Your task to perform on an android device: turn on data saver in the chrome app Image 0: 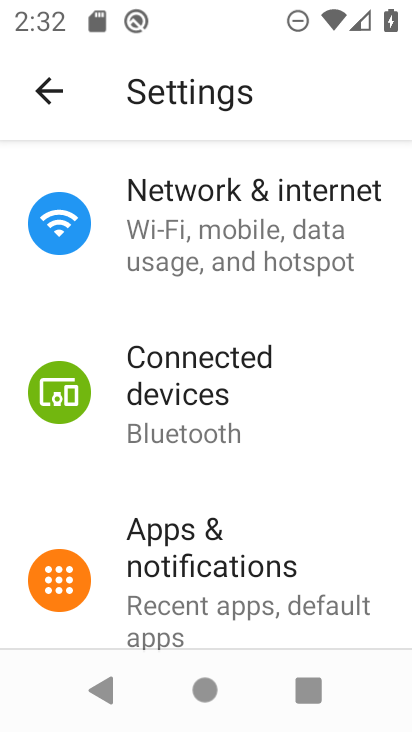
Step 0: press home button
Your task to perform on an android device: turn on data saver in the chrome app Image 1: 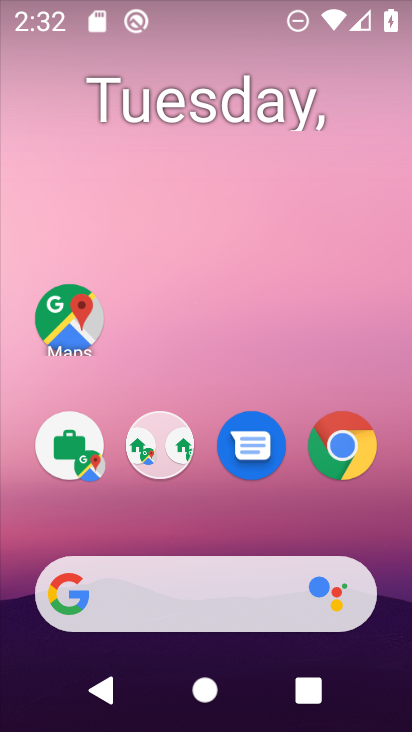
Step 1: click (359, 486)
Your task to perform on an android device: turn on data saver in the chrome app Image 2: 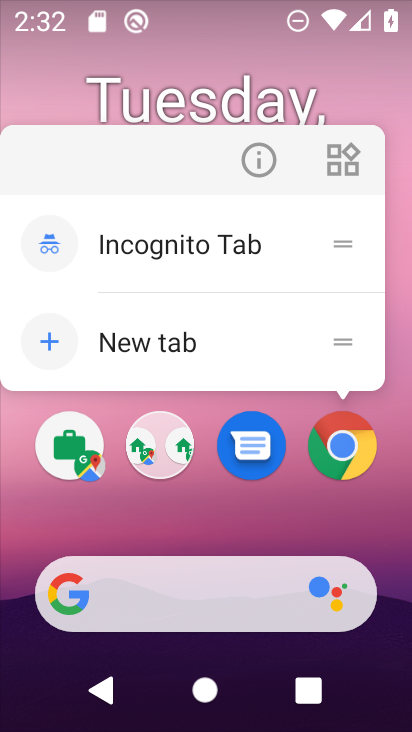
Step 2: click (249, 159)
Your task to perform on an android device: turn on data saver in the chrome app Image 3: 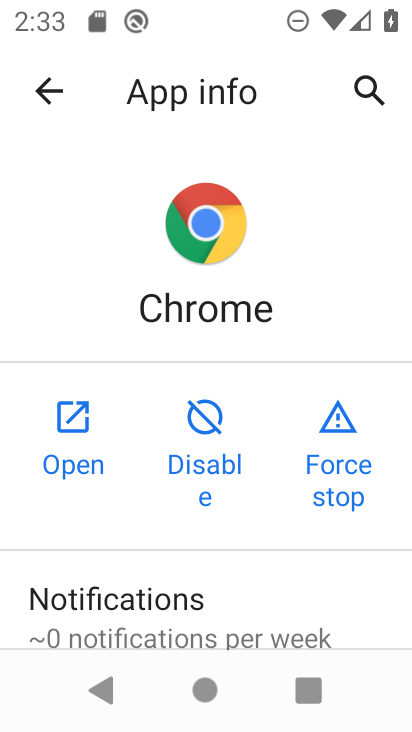
Step 3: click (45, 456)
Your task to perform on an android device: turn on data saver in the chrome app Image 4: 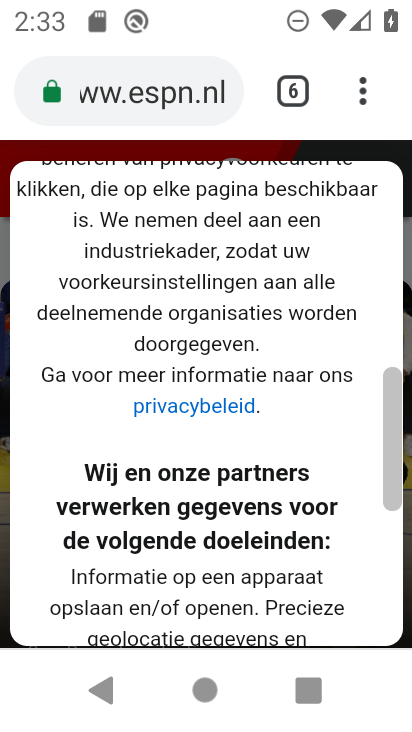
Step 4: click (365, 98)
Your task to perform on an android device: turn on data saver in the chrome app Image 5: 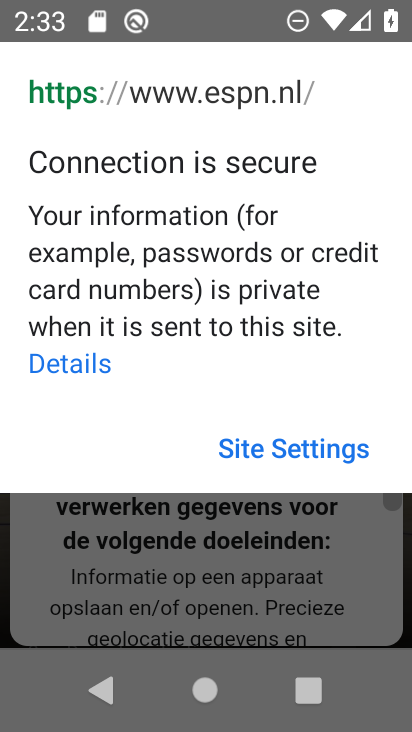
Step 5: drag from (234, 390) to (235, 123)
Your task to perform on an android device: turn on data saver in the chrome app Image 6: 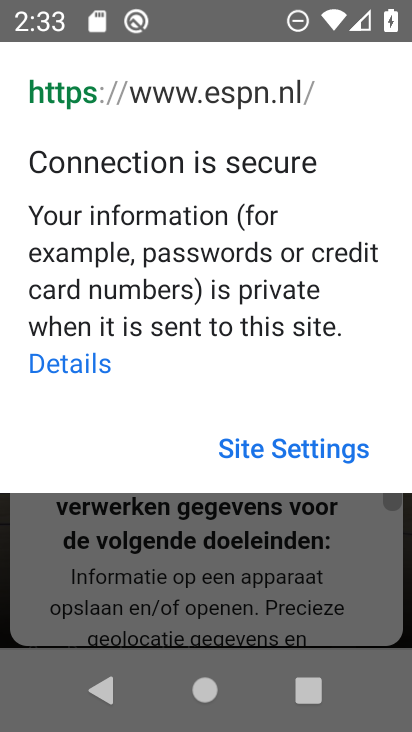
Step 6: click (292, 451)
Your task to perform on an android device: turn on data saver in the chrome app Image 7: 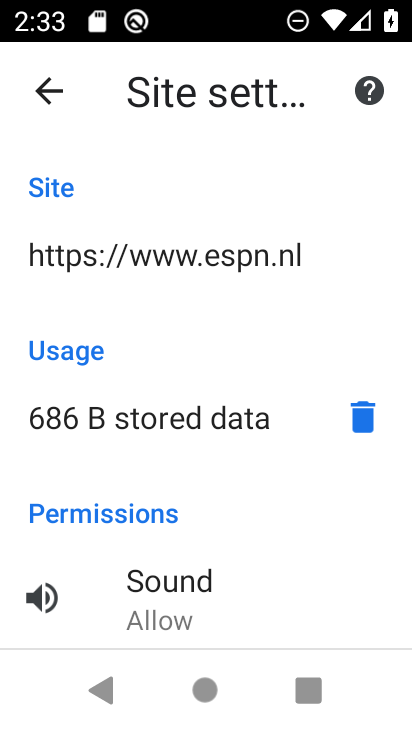
Step 7: drag from (124, 389) to (173, 90)
Your task to perform on an android device: turn on data saver in the chrome app Image 8: 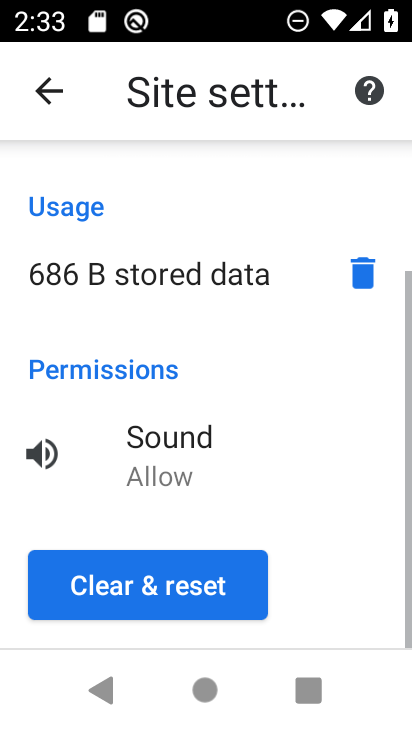
Step 8: click (51, 111)
Your task to perform on an android device: turn on data saver in the chrome app Image 9: 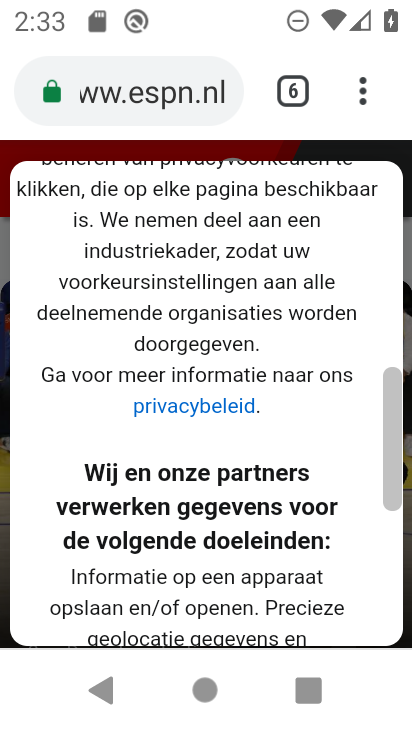
Step 9: click (277, 92)
Your task to perform on an android device: turn on data saver in the chrome app Image 10: 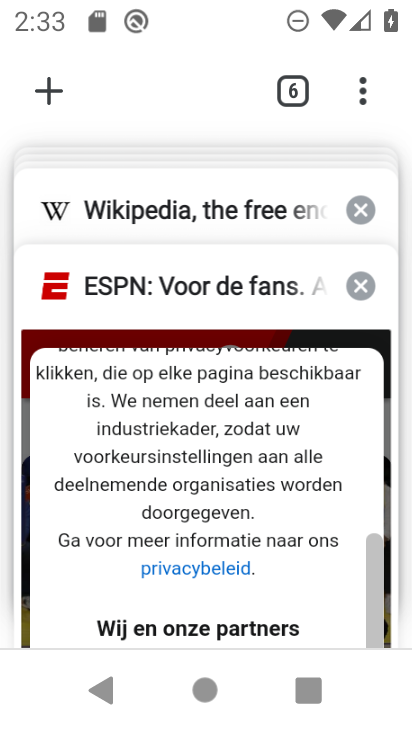
Step 10: click (357, 90)
Your task to perform on an android device: turn on data saver in the chrome app Image 11: 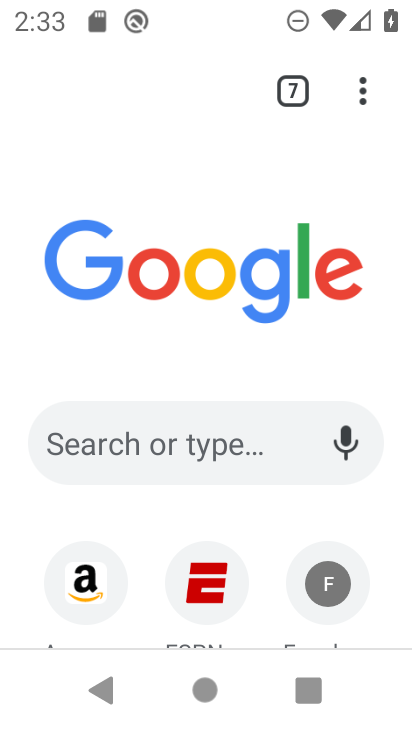
Step 11: click (363, 101)
Your task to perform on an android device: turn on data saver in the chrome app Image 12: 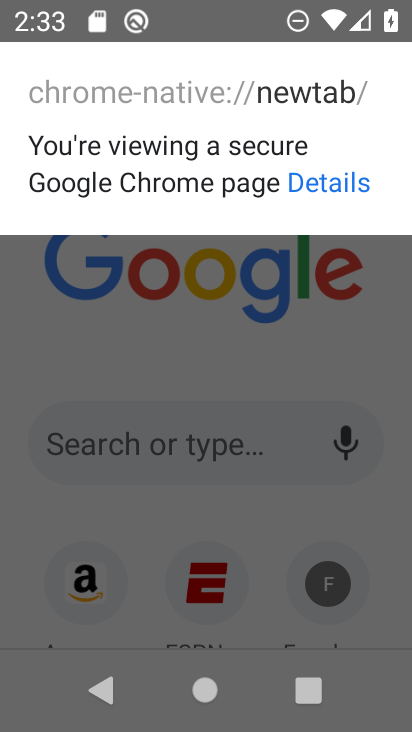
Step 12: task complete